Your task to perform on an android device: turn off notifications settings in the gmail app Image 0: 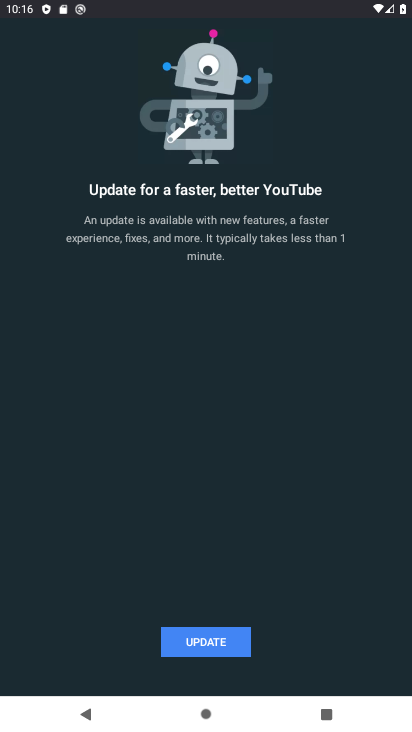
Step 0: press home button
Your task to perform on an android device: turn off notifications settings in the gmail app Image 1: 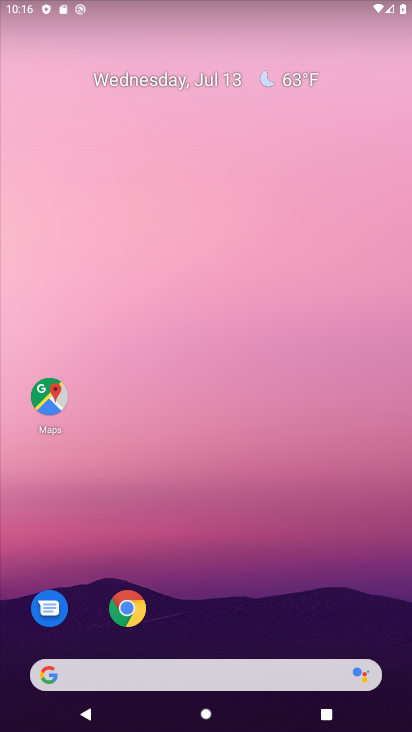
Step 1: drag from (264, 538) to (187, 94)
Your task to perform on an android device: turn off notifications settings in the gmail app Image 2: 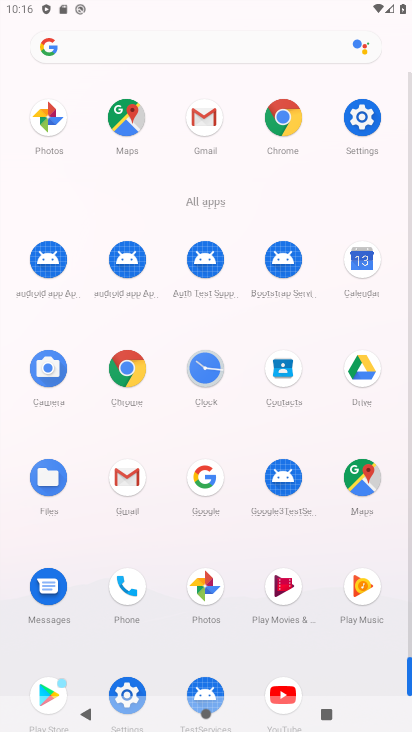
Step 2: click (132, 467)
Your task to perform on an android device: turn off notifications settings in the gmail app Image 3: 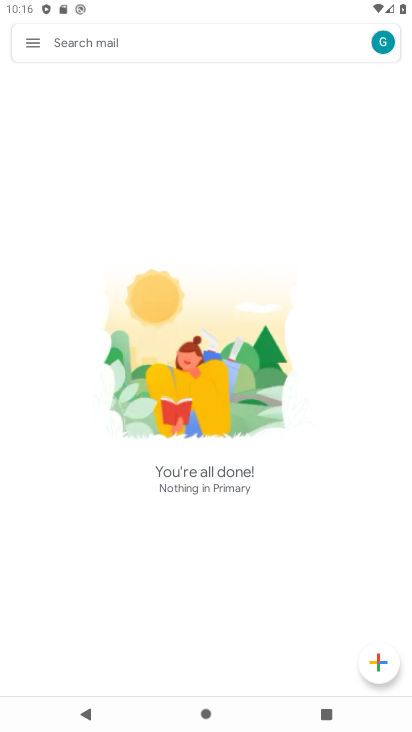
Step 3: press home button
Your task to perform on an android device: turn off notifications settings in the gmail app Image 4: 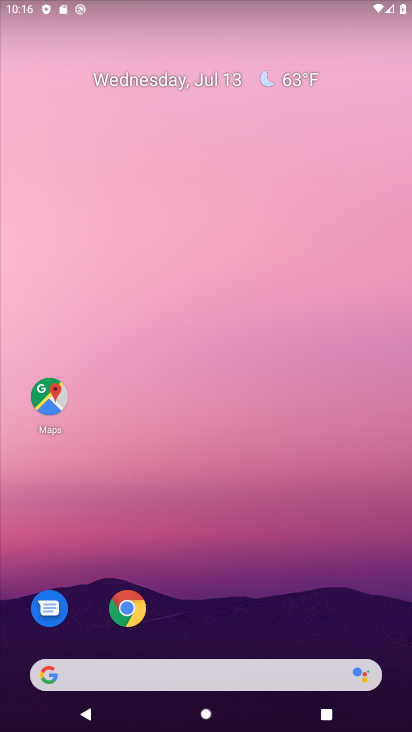
Step 4: drag from (301, 541) to (309, 144)
Your task to perform on an android device: turn off notifications settings in the gmail app Image 5: 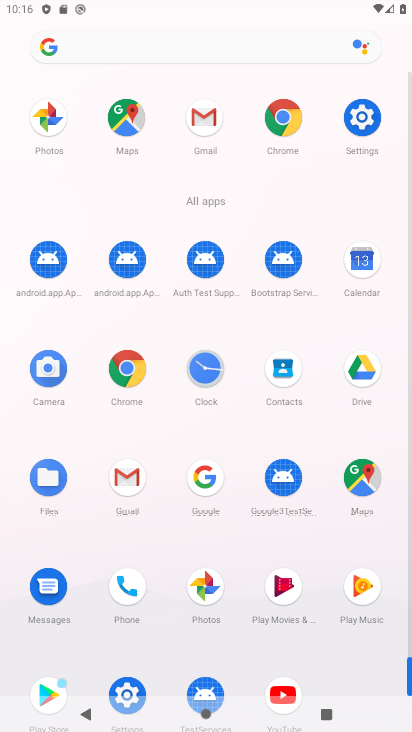
Step 5: click (137, 476)
Your task to perform on an android device: turn off notifications settings in the gmail app Image 6: 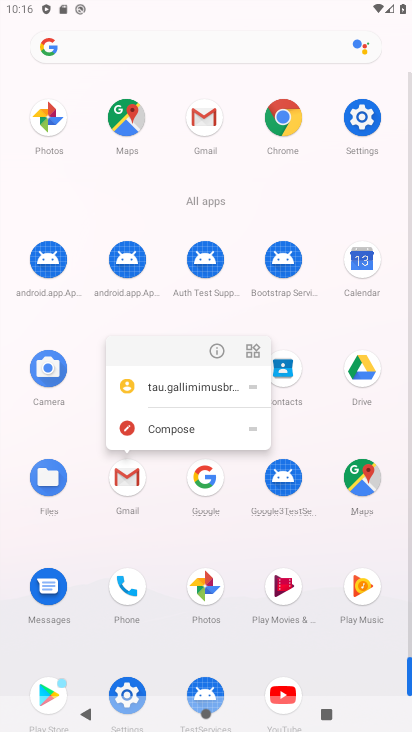
Step 6: click (221, 354)
Your task to perform on an android device: turn off notifications settings in the gmail app Image 7: 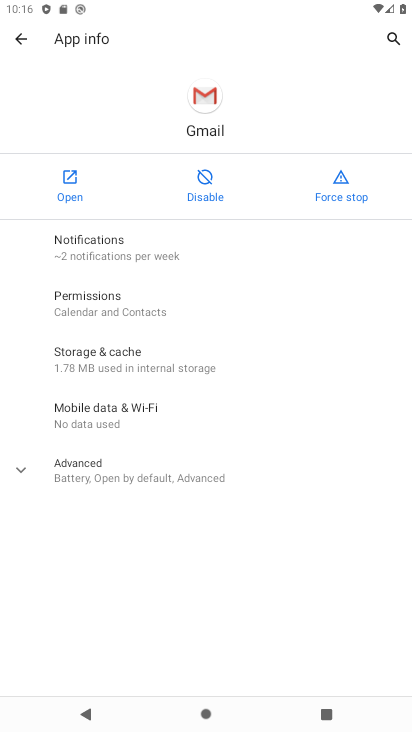
Step 7: click (226, 234)
Your task to perform on an android device: turn off notifications settings in the gmail app Image 8: 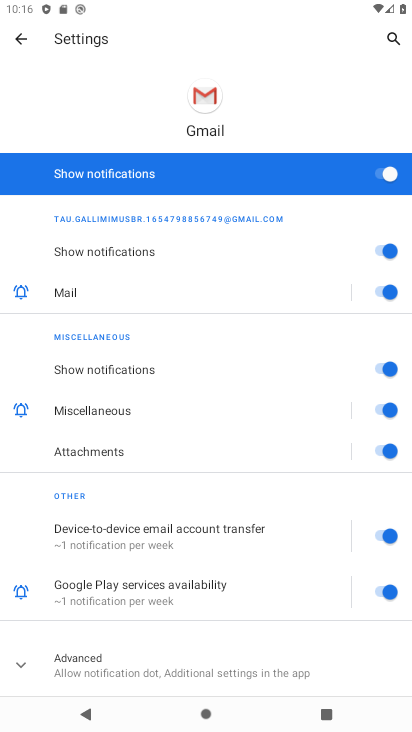
Step 8: click (366, 167)
Your task to perform on an android device: turn off notifications settings in the gmail app Image 9: 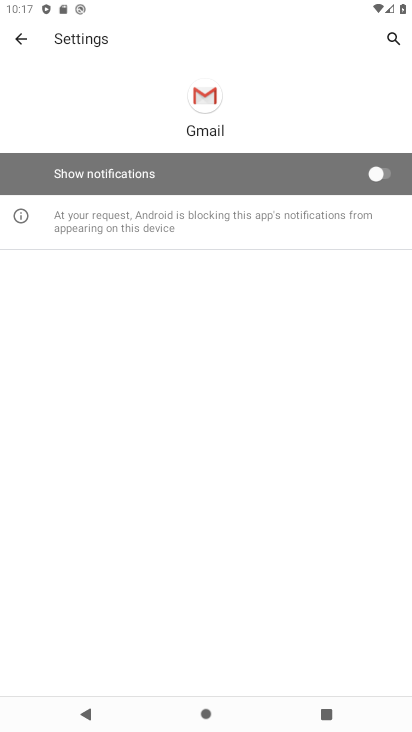
Step 9: task complete